Your task to perform on an android device: toggle javascript in the chrome app Image 0: 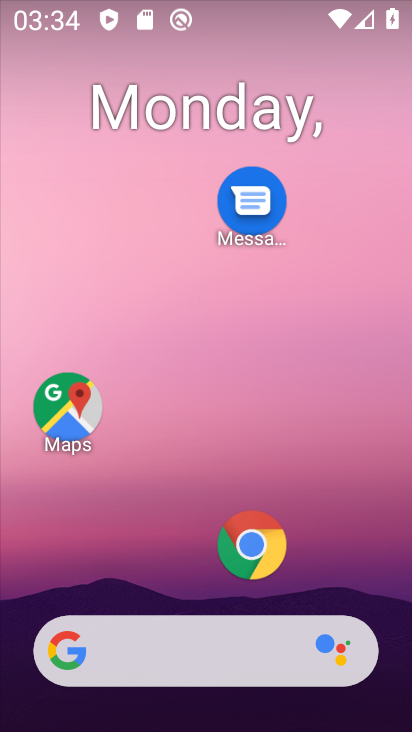
Step 0: click (265, 548)
Your task to perform on an android device: toggle javascript in the chrome app Image 1: 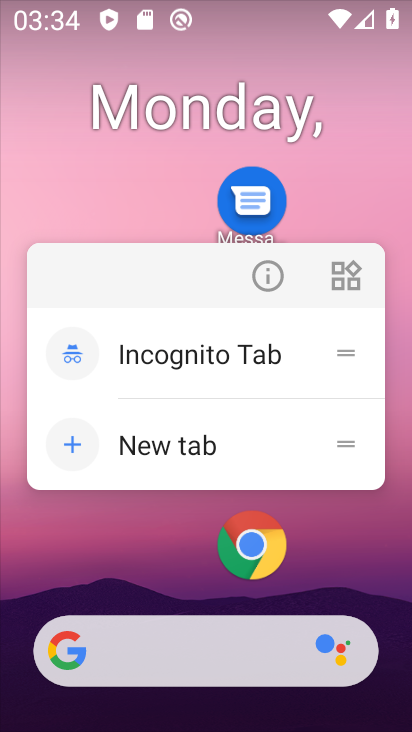
Step 1: click (262, 541)
Your task to perform on an android device: toggle javascript in the chrome app Image 2: 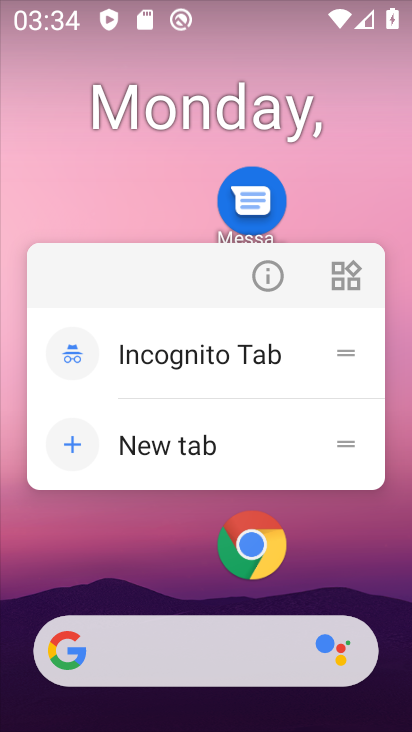
Step 2: click (251, 542)
Your task to perform on an android device: toggle javascript in the chrome app Image 3: 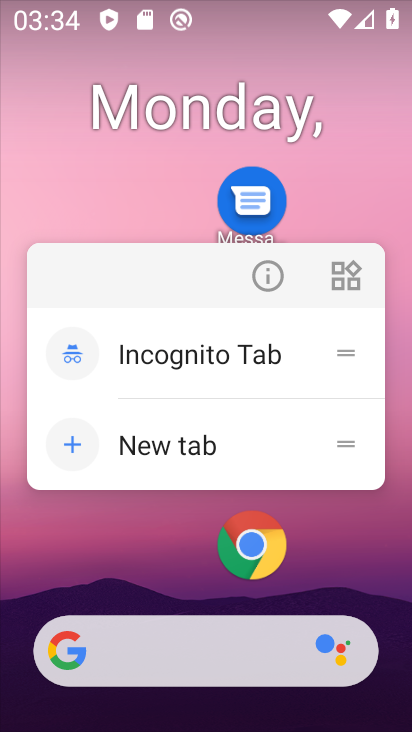
Step 3: click (259, 535)
Your task to perform on an android device: toggle javascript in the chrome app Image 4: 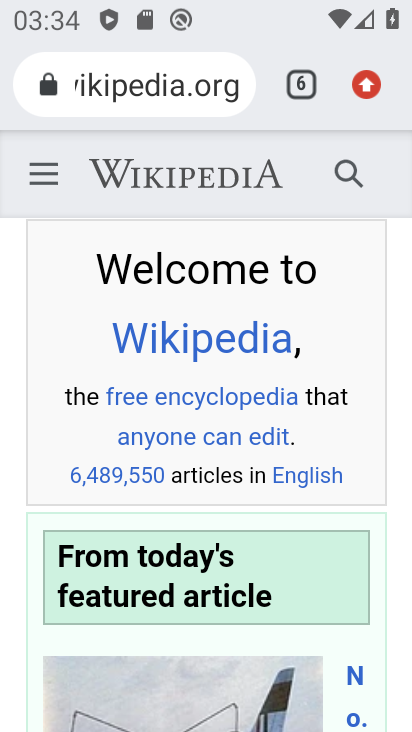
Step 4: drag from (368, 87) to (135, 559)
Your task to perform on an android device: toggle javascript in the chrome app Image 5: 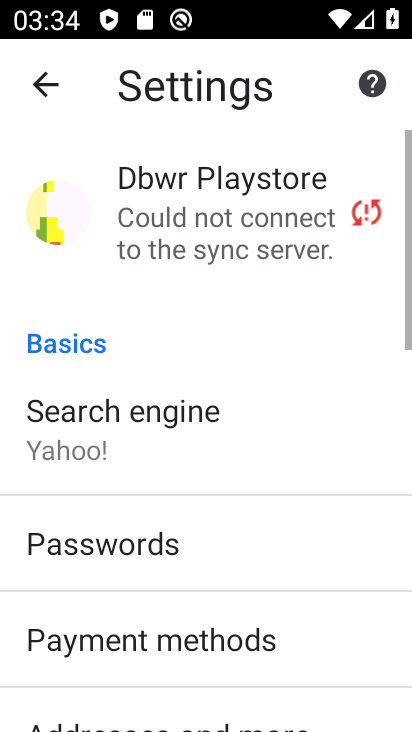
Step 5: drag from (145, 588) to (291, 133)
Your task to perform on an android device: toggle javascript in the chrome app Image 6: 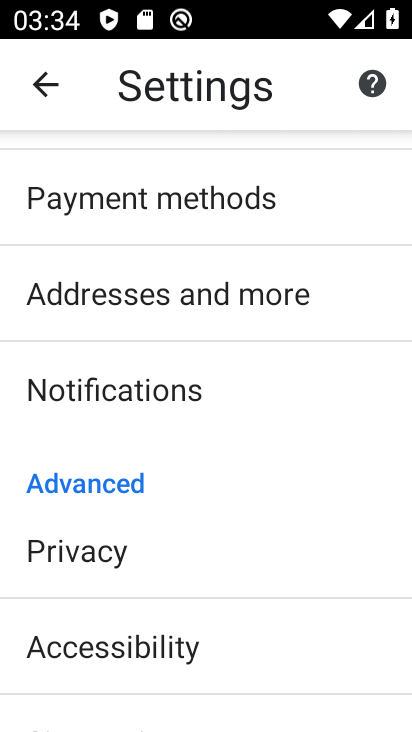
Step 6: drag from (182, 557) to (257, 286)
Your task to perform on an android device: toggle javascript in the chrome app Image 7: 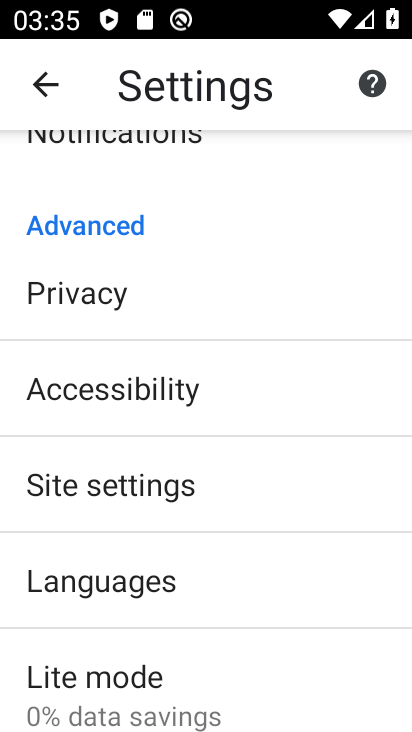
Step 7: click (113, 484)
Your task to perform on an android device: toggle javascript in the chrome app Image 8: 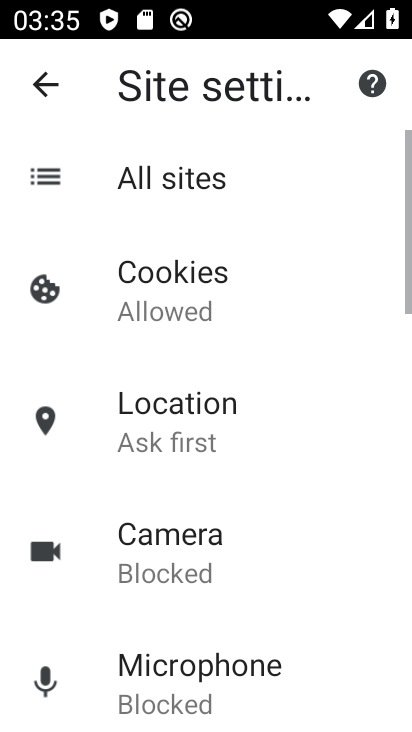
Step 8: drag from (183, 637) to (342, 164)
Your task to perform on an android device: toggle javascript in the chrome app Image 9: 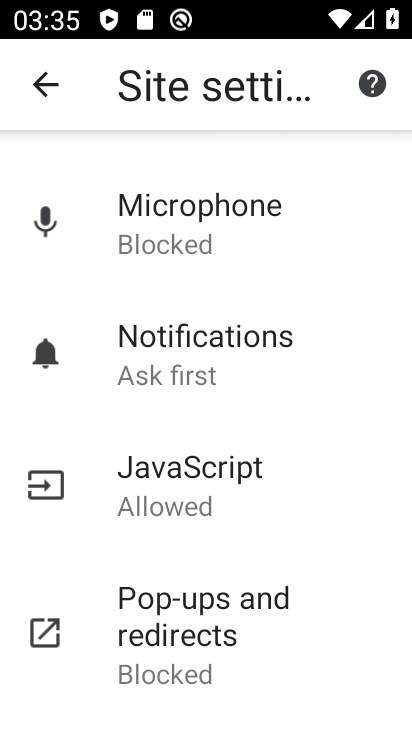
Step 9: click (178, 473)
Your task to perform on an android device: toggle javascript in the chrome app Image 10: 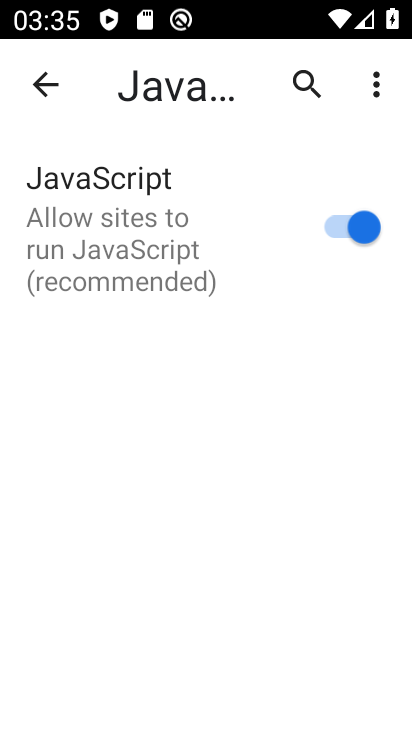
Step 10: click (353, 238)
Your task to perform on an android device: toggle javascript in the chrome app Image 11: 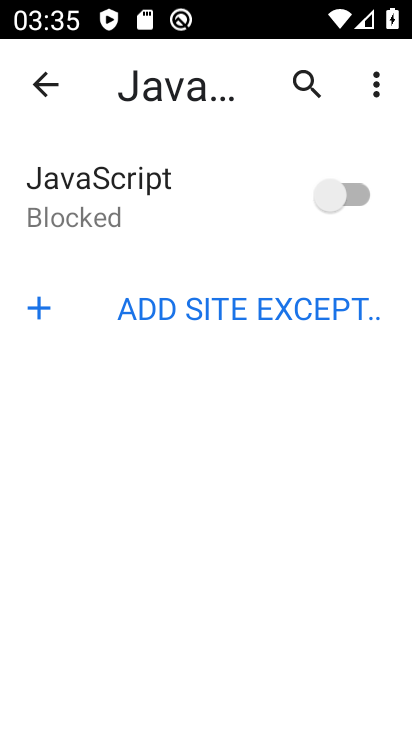
Step 11: task complete